Your task to perform on an android device: open app "Booking.com: Hotels and more" Image 0: 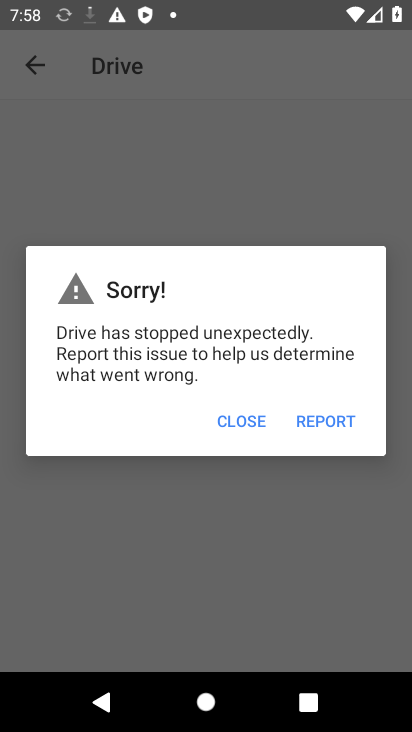
Step 0: click (248, 419)
Your task to perform on an android device: open app "Booking.com: Hotels and more" Image 1: 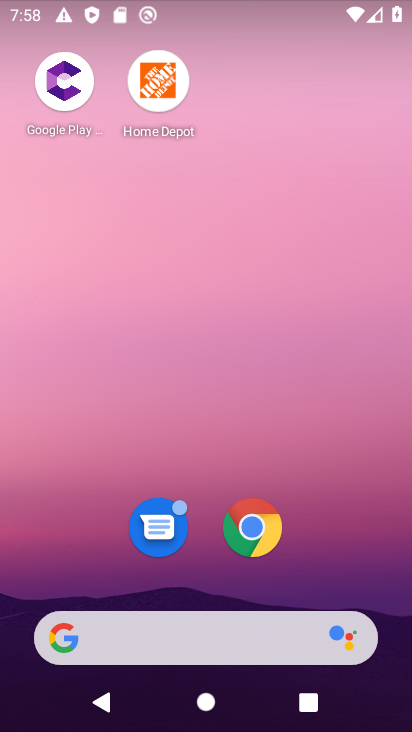
Step 1: drag from (83, 547) to (153, 153)
Your task to perform on an android device: open app "Booking.com: Hotels and more" Image 2: 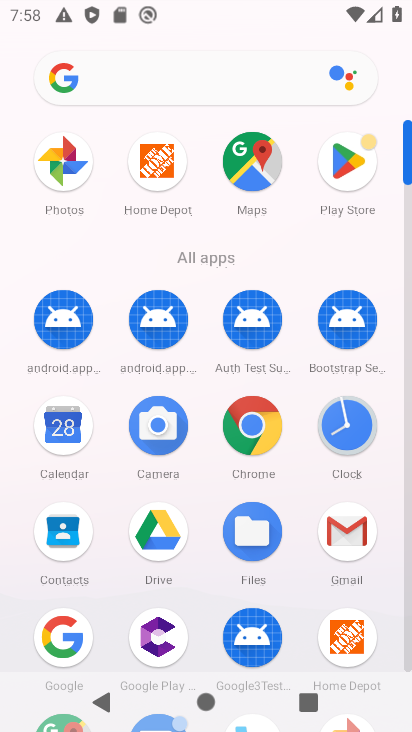
Step 2: click (340, 169)
Your task to perform on an android device: open app "Booking.com: Hotels and more" Image 3: 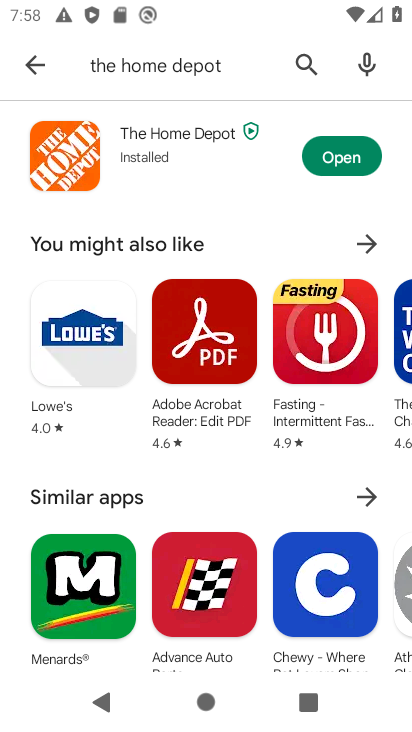
Step 3: click (298, 54)
Your task to perform on an android device: open app "Booking.com: Hotels and more" Image 4: 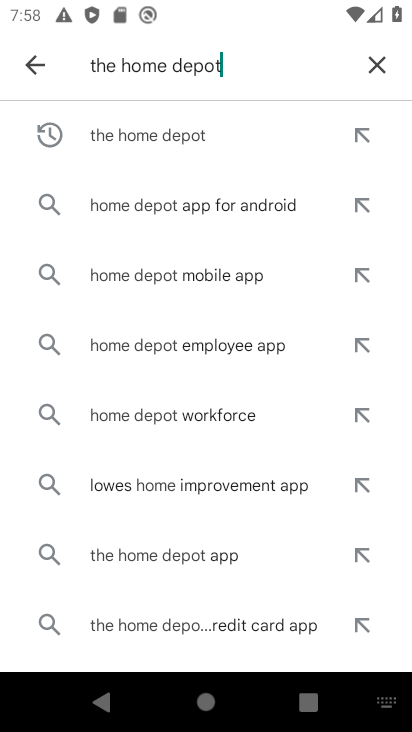
Step 4: click (378, 58)
Your task to perform on an android device: open app "Booking.com: Hotels and more" Image 5: 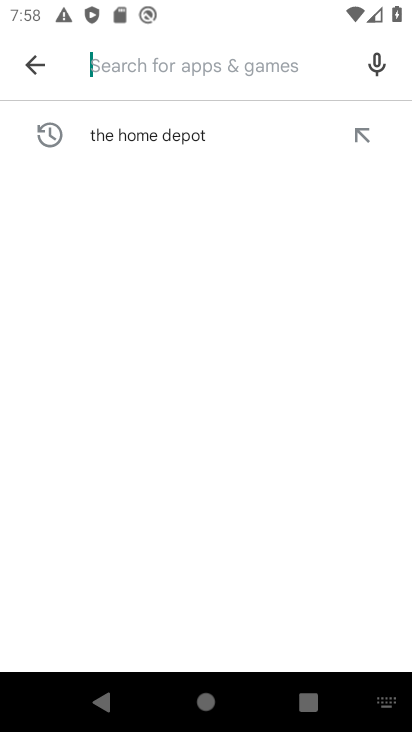
Step 5: type "Booking.com"
Your task to perform on an android device: open app "Booking.com: Hotels and more" Image 6: 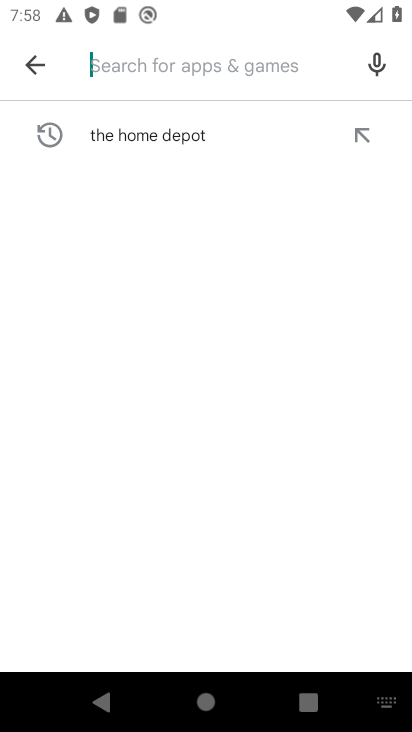
Step 6: click (238, 287)
Your task to perform on an android device: open app "Booking.com: Hotels and more" Image 7: 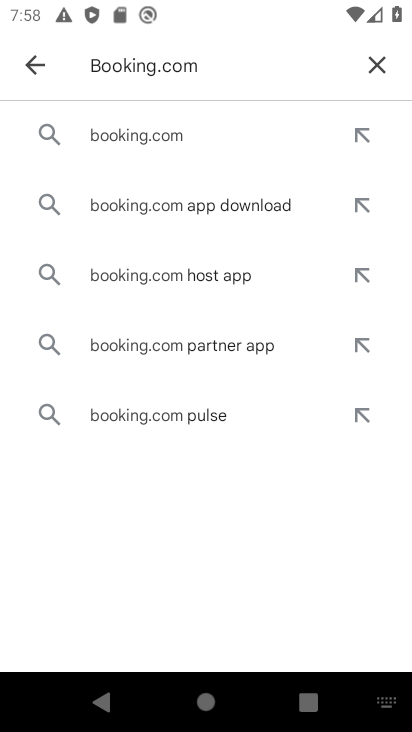
Step 7: click (168, 144)
Your task to perform on an android device: open app "Booking.com: Hotels and more" Image 8: 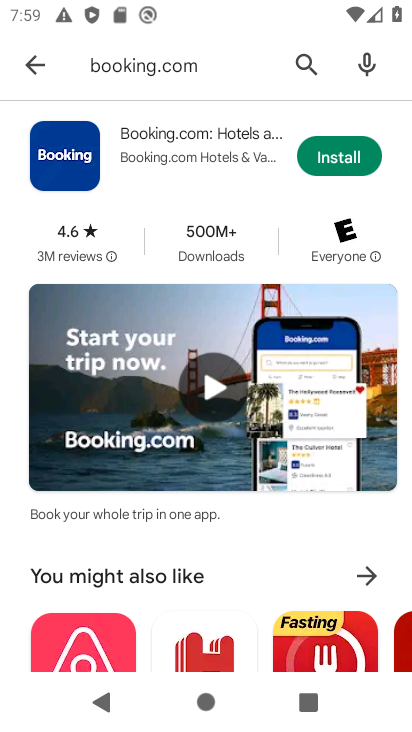
Step 8: click (328, 150)
Your task to perform on an android device: open app "Booking.com: Hotels and more" Image 9: 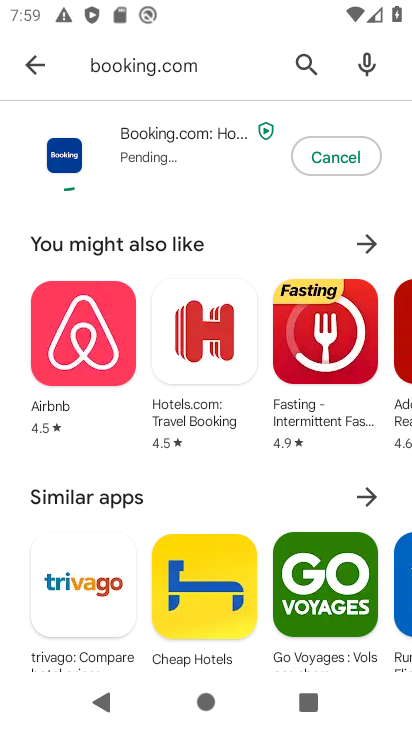
Step 9: click (32, 58)
Your task to perform on an android device: open app "Booking.com: Hotels and more" Image 10: 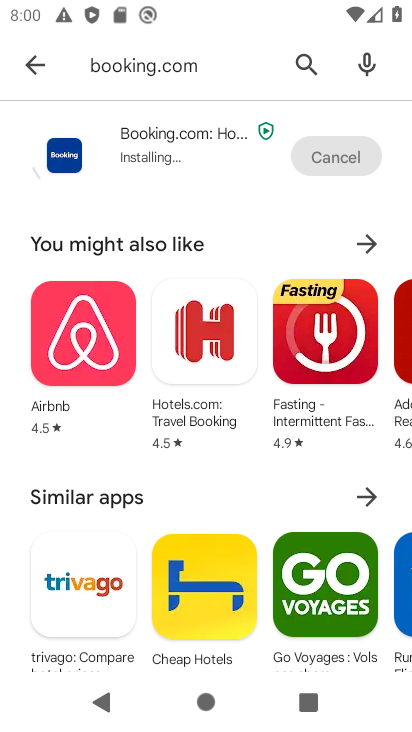
Step 10: click (22, 65)
Your task to perform on an android device: open app "Booking.com: Hotels and more" Image 11: 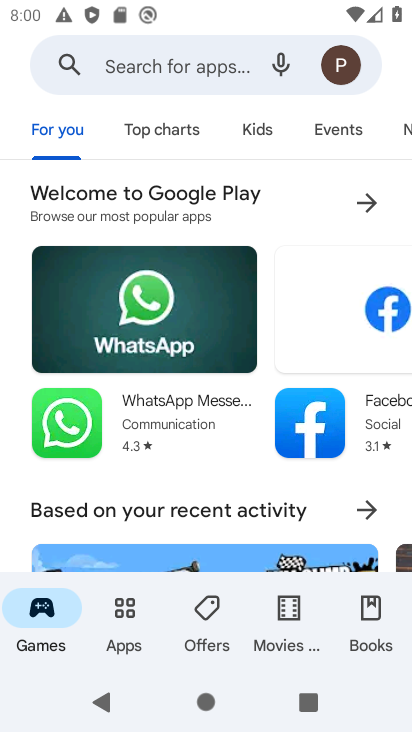
Step 11: click (164, 62)
Your task to perform on an android device: open app "Booking.com: Hotels and more" Image 12: 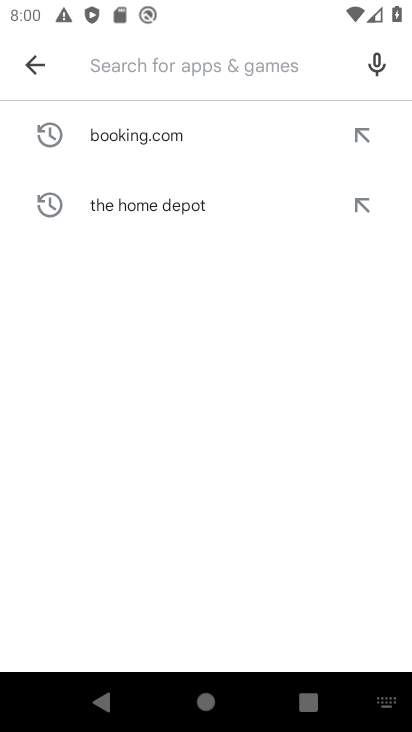
Step 12: click (129, 125)
Your task to perform on an android device: open app "Booking.com: Hotels and more" Image 13: 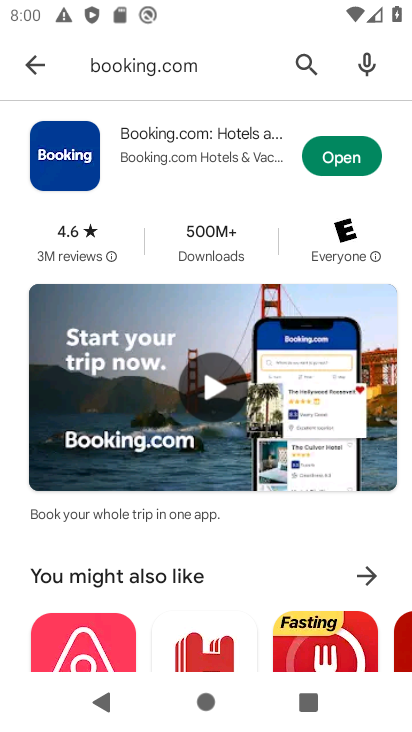
Step 13: click (349, 154)
Your task to perform on an android device: open app "Booking.com: Hotels and more" Image 14: 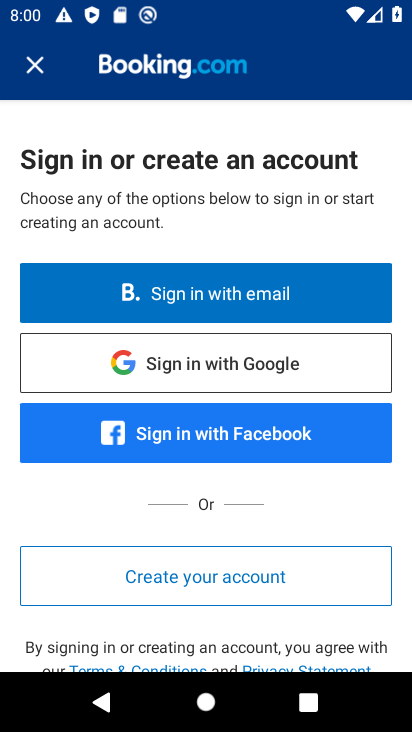
Step 14: task complete